Your task to perform on an android device: Go to ESPN.com Image 0: 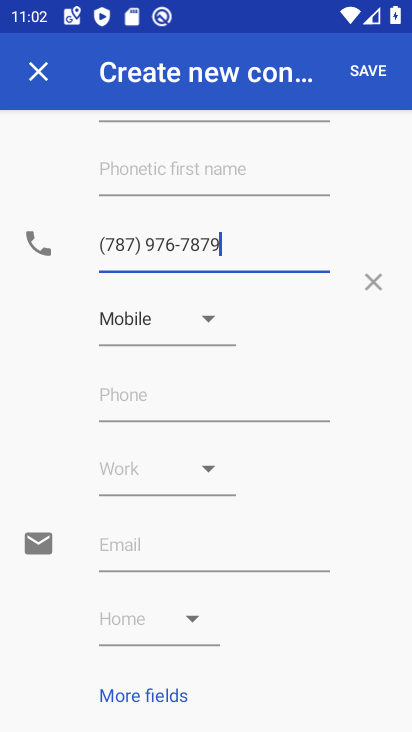
Step 0: press home button
Your task to perform on an android device: Go to ESPN.com Image 1: 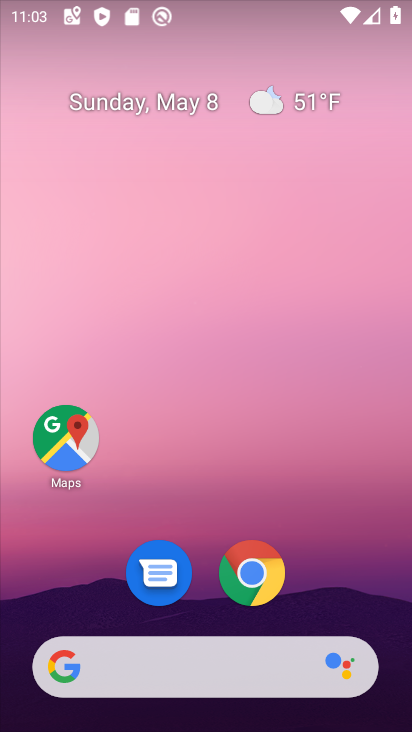
Step 1: click (240, 578)
Your task to perform on an android device: Go to ESPN.com Image 2: 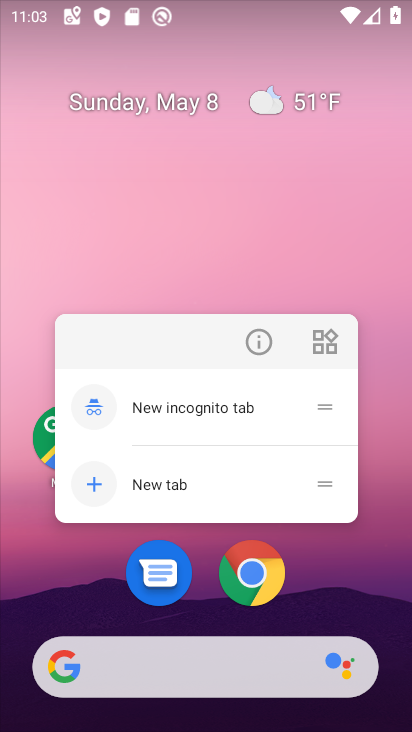
Step 2: click (242, 577)
Your task to perform on an android device: Go to ESPN.com Image 3: 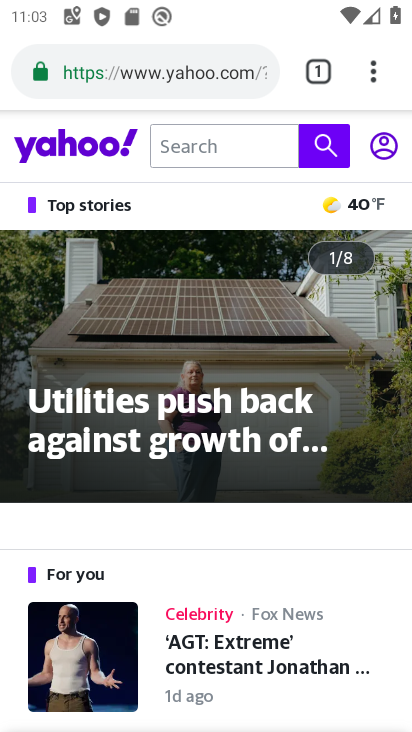
Step 3: press home button
Your task to perform on an android device: Go to ESPN.com Image 4: 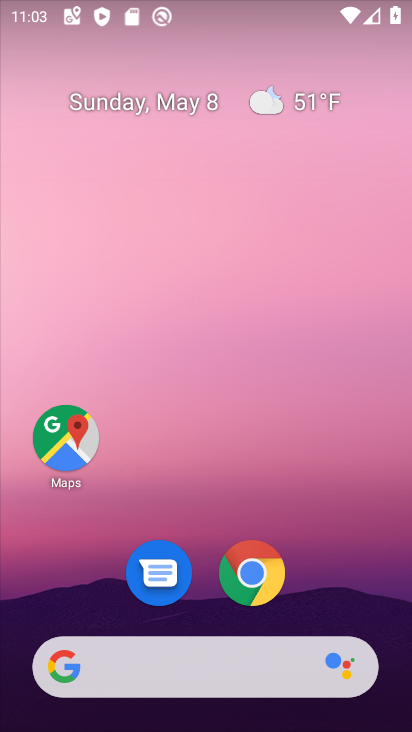
Step 4: drag from (179, 641) to (187, 231)
Your task to perform on an android device: Go to ESPN.com Image 5: 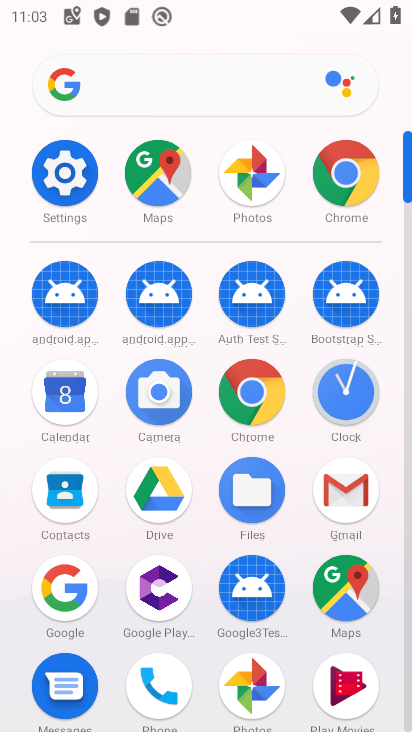
Step 5: click (340, 189)
Your task to perform on an android device: Go to ESPN.com Image 6: 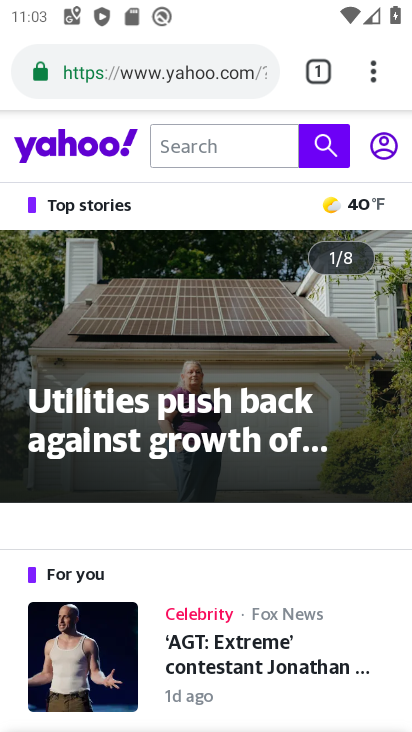
Step 6: click (324, 75)
Your task to perform on an android device: Go to ESPN.com Image 7: 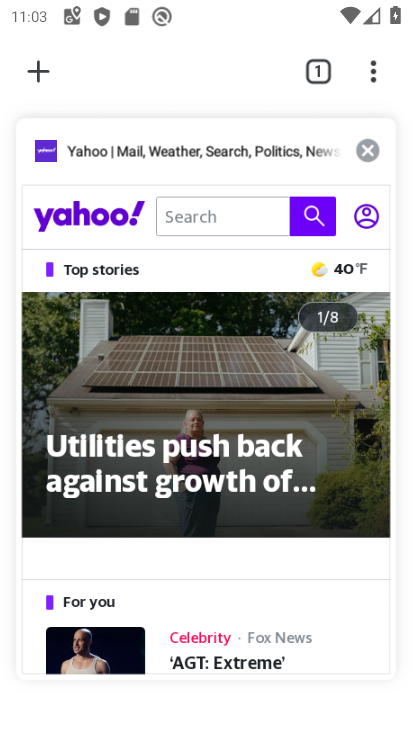
Step 7: click (371, 148)
Your task to perform on an android device: Go to ESPN.com Image 8: 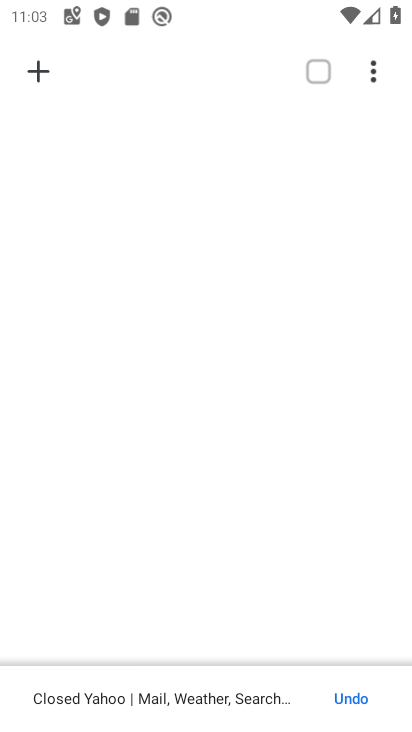
Step 8: click (41, 65)
Your task to perform on an android device: Go to ESPN.com Image 9: 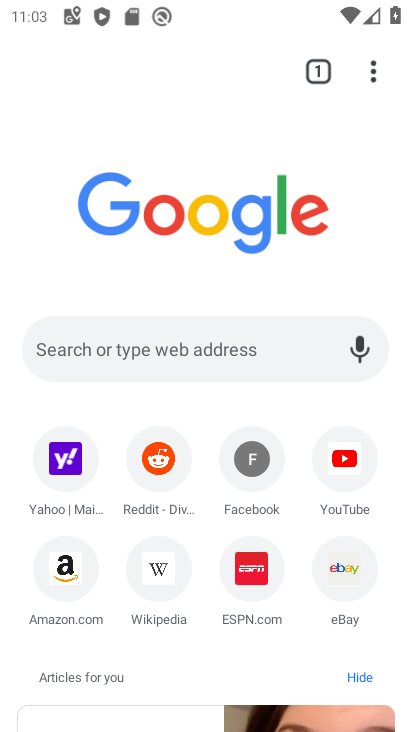
Step 9: click (249, 580)
Your task to perform on an android device: Go to ESPN.com Image 10: 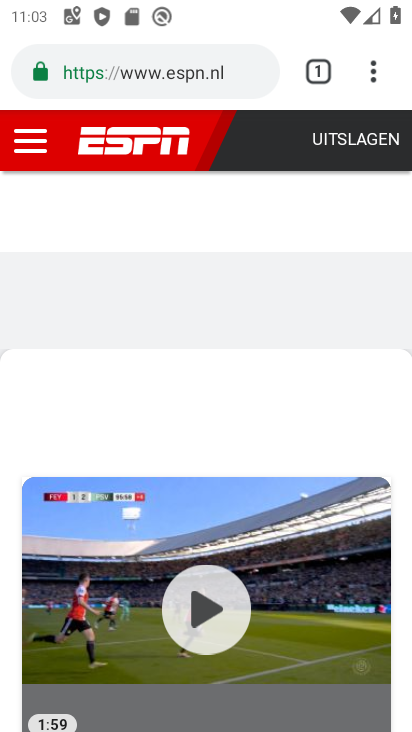
Step 10: task complete